Your task to perform on an android device: Open the calendar app, open the side menu, and click the "Day" option Image 0: 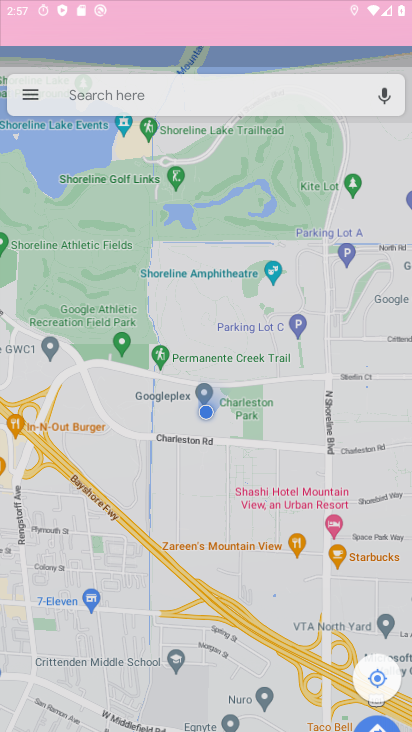
Step 0: click (35, 386)
Your task to perform on an android device: Open the calendar app, open the side menu, and click the "Day" option Image 1: 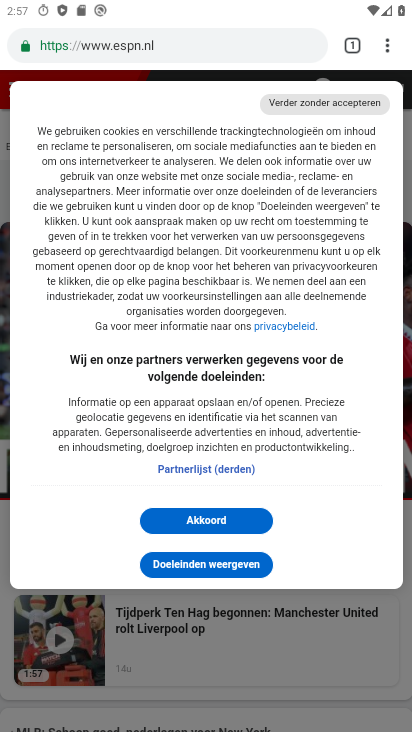
Step 1: press home button
Your task to perform on an android device: Open the calendar app, open the side menu, and click the "Day" option Image 2: 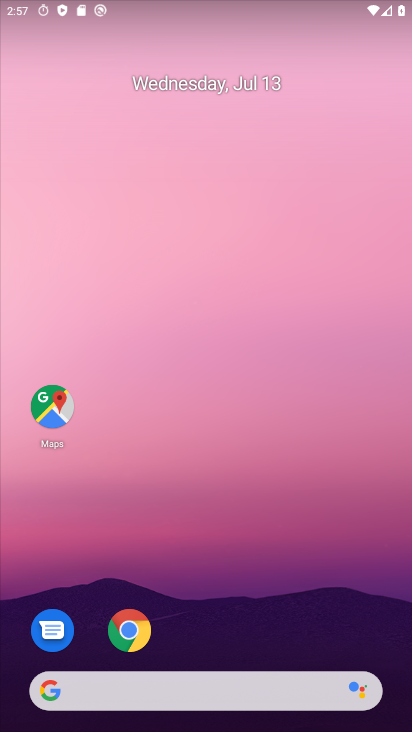
Step 2: drag from (97, 524) to (288, 0)
Your task to perform on an android device: Open the calendar app, open the side menu, and click the "Day" option Image 3: 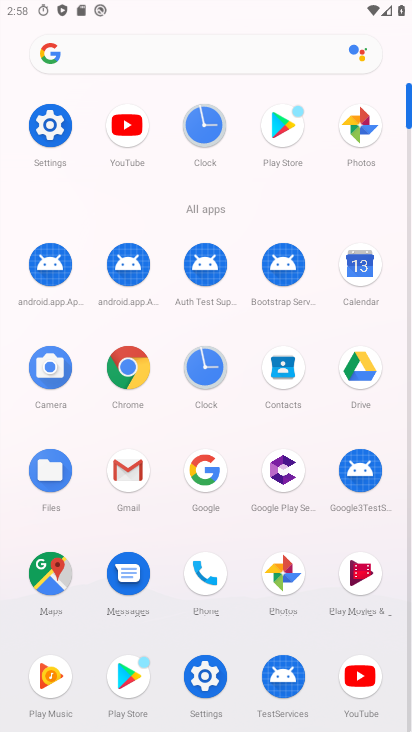
Step 3: click (359, 287)
Your task to perform on an android device: Open the calendar app, open the side menu, and click the "Day" option Image 4: 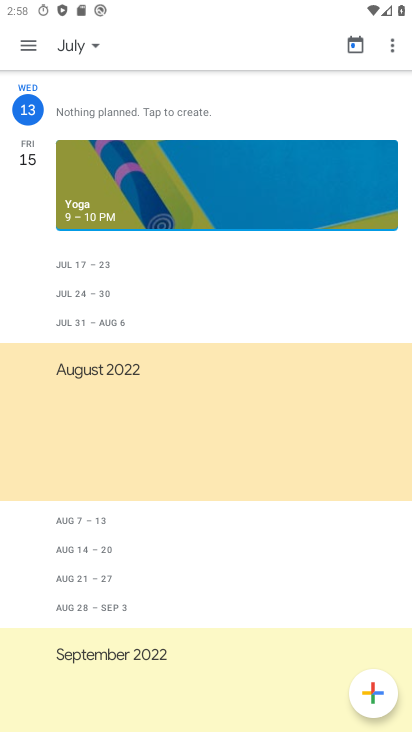
Step 4: click (93, 49)
Your task to perform on an android device: Open the calendar app, open the side menu, and click the "Day" option Image 5: 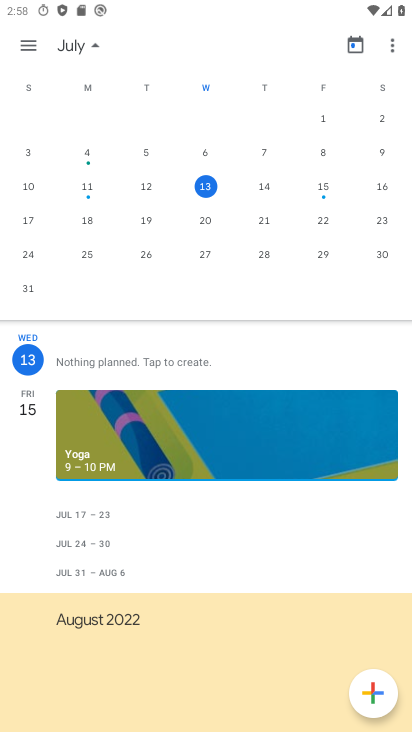
Step 5: click (33, 49)
Your task to perform on an android device: Open the calendar app, open the side menu, and click the "Day" option Image 6: 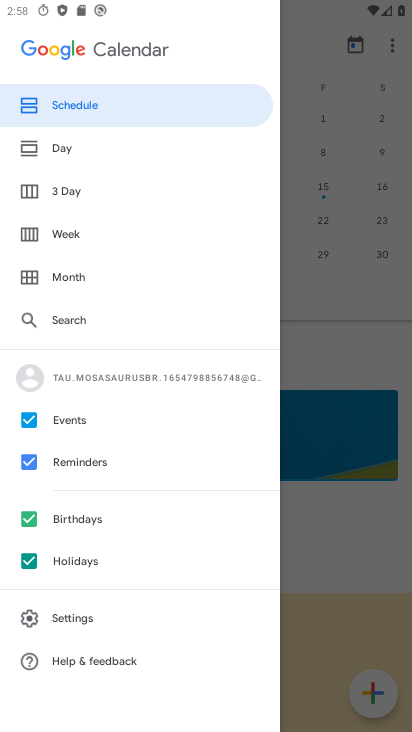
Step 6: click (81, 140)
Your task to perform on an android device: Open the calendar app, open the side menu, and click the "Day" option Image 7: 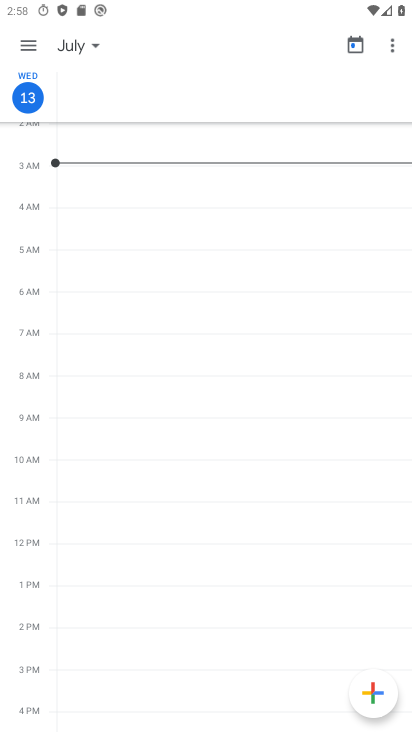
Step 7: task complete